Your task to perform on an android device: Open the map Image 0: 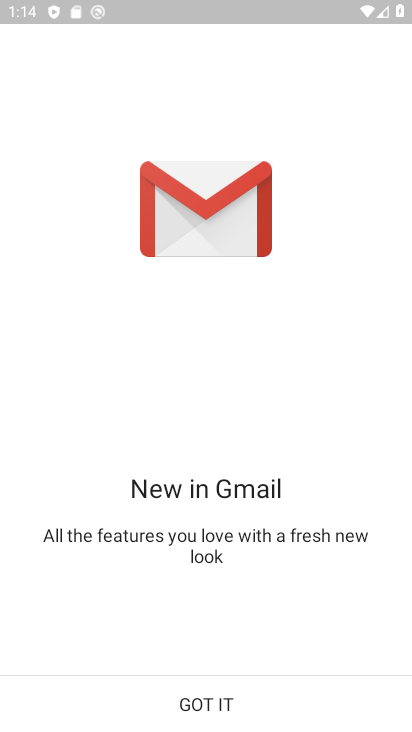
Step 0: click (201, 705)
Your task to perform on an android device: Open the map Image 1: 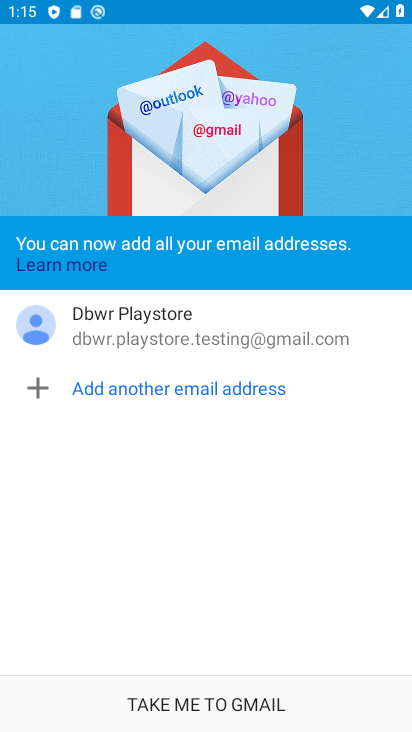
Step 1: click (201, 705)
Your task to perform on an android device: Open the map Image 2: 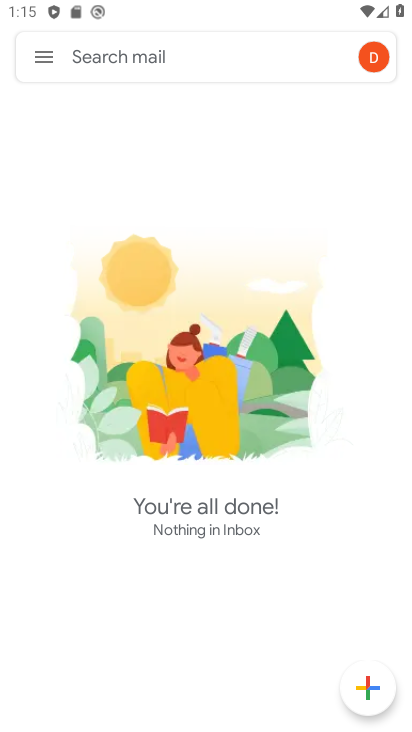
Step 2: press home button
Your task to perform on an android device: Open the map Image 3: 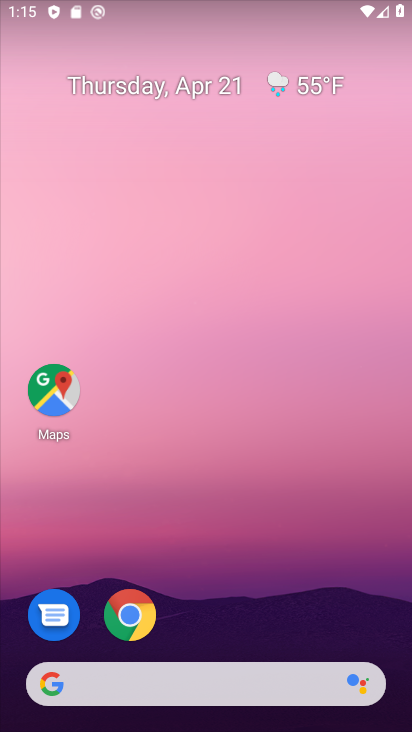
Step 3: drag from (271, 506) to (283, 314)
Your task to perform on an android device: Open the map Image 4: 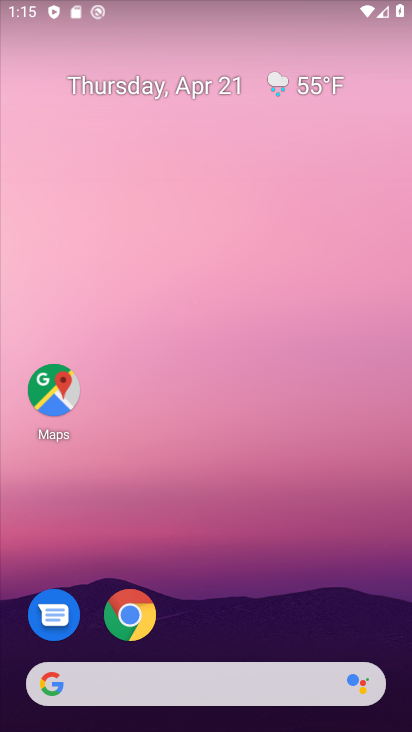
Step 4: drag from (194, 661) to (263, 142)
Your task to perform on an android device: Open the map Image 5: 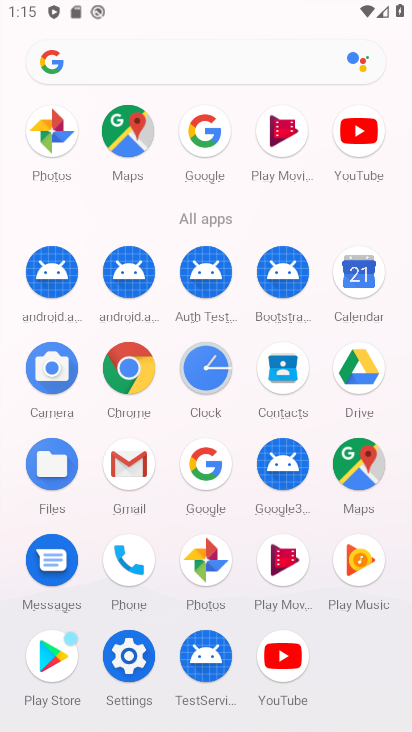
Step 5: click (118, 135)
Your task to perform on an android device: Open the map Image 6: 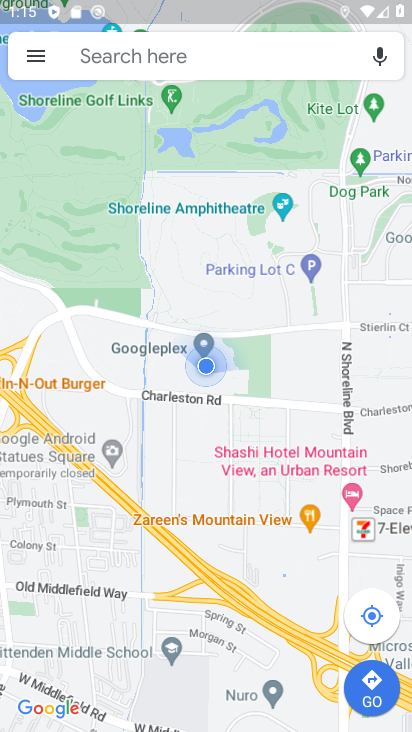
Step 6: task complete